Your task to perform on an android device: Open accessibility settings Image 0: 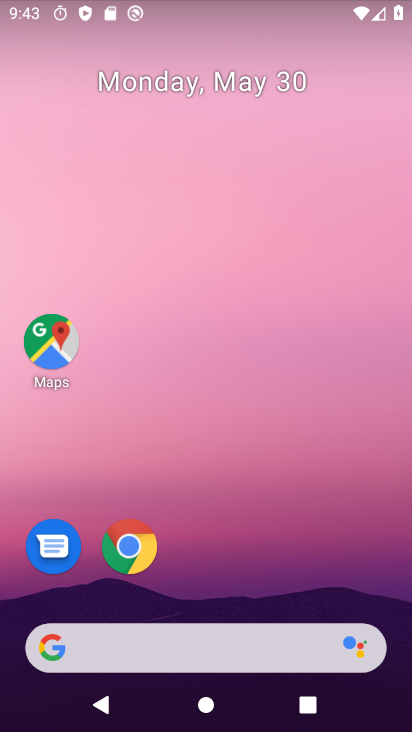
Step 0: click (280, 132)
Your task to perform on an android device: Open accessibility settings Image 1: 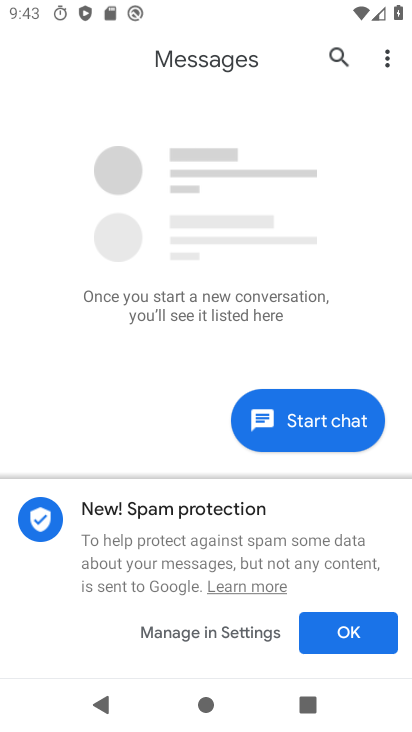
Step 1: press home button
Your task to perform on an android device: Open accessibility settings Image 2: 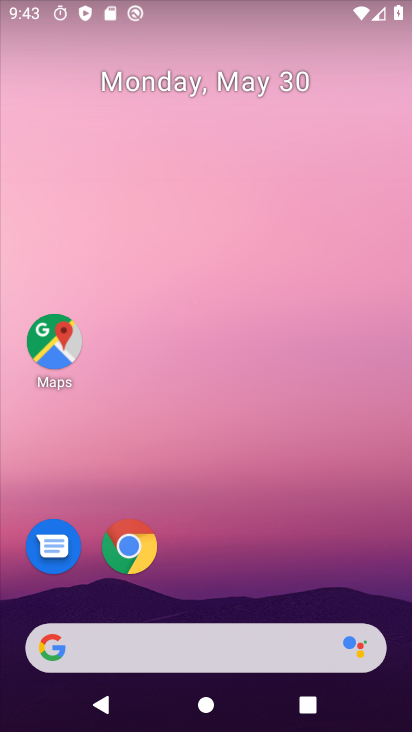
Step 2: drag from (165, 628) to (249, 103)
Your task to perform on an android device: Open accessibility settings Image 3: 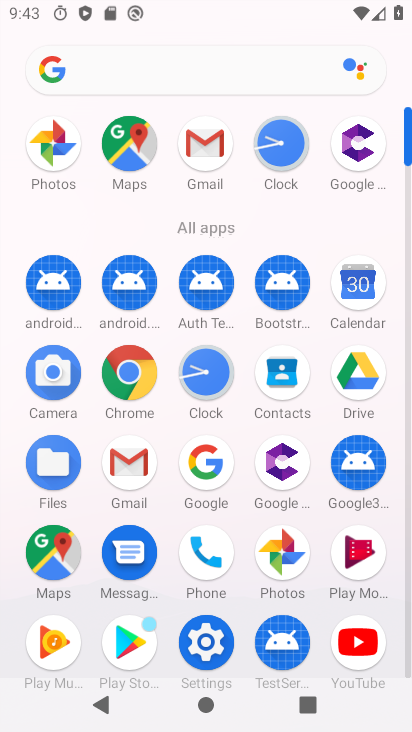
Step 3: drag from (174, 543) to (214, 361)
Your task to perform on an android device: Open accessibility settings Image 4: 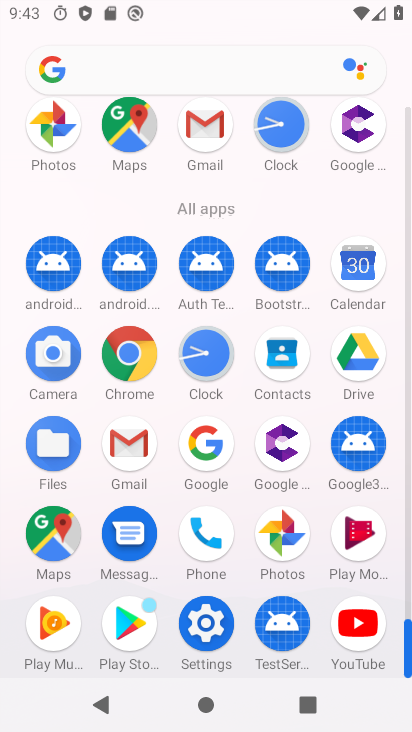
Step 4: click (205, 630)
Your task to perform on an android device: Open accessibility settings Image 5: 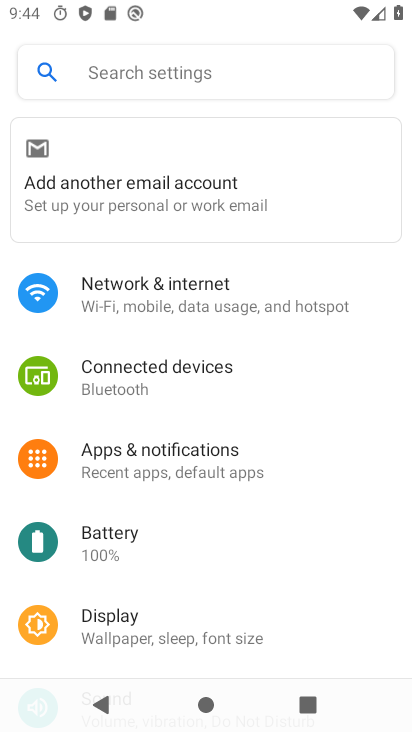
Step 5: drag from (220, 546) to (307, 121)
Your task to perform on an android device: Open accessibility settings Image 6: 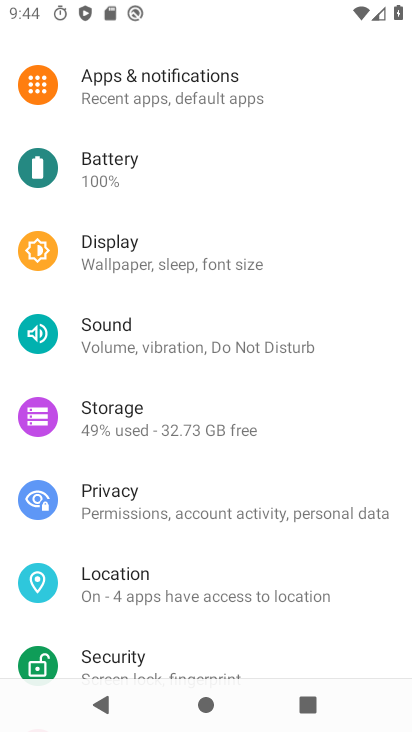
Step 6: drag from (117, 562) to (275, 66)
Your task to perform on an android device: Open accessibility settings Image 7: 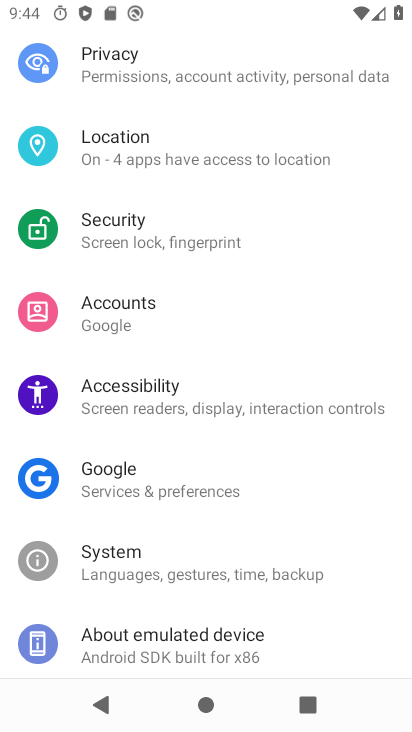
Step 7: drag from (184, 487) to (267, 171)
Your task to perform on an android device: Open accessibility settings Image 8: 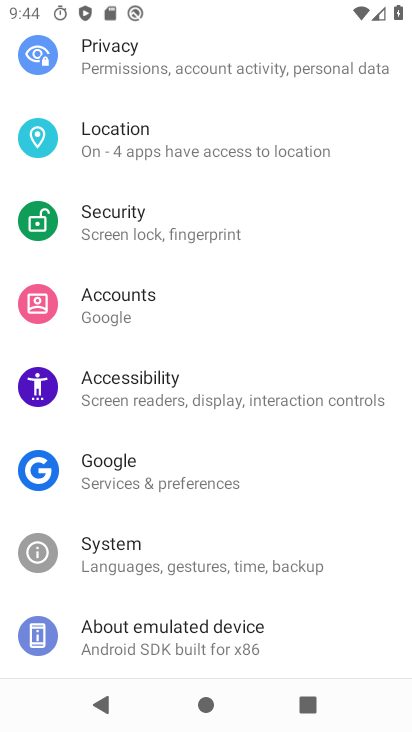
Step 8: click (183, 391)
Your task to perform on an android device: Open accessibility settings Image 9: 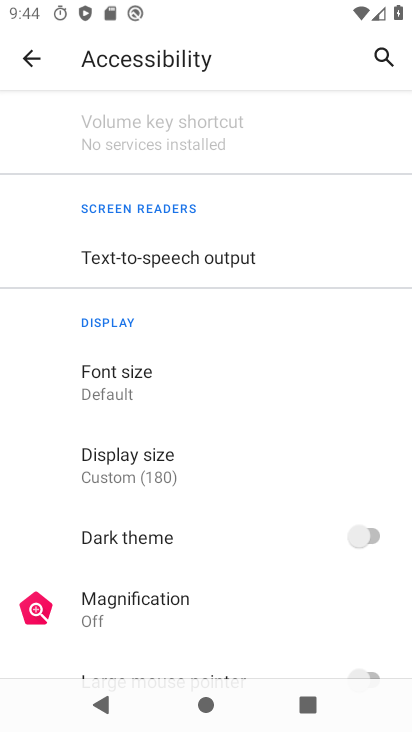
Step 9: task complete